Your task to perform on an android device: Go to ESPN.com Image 0: 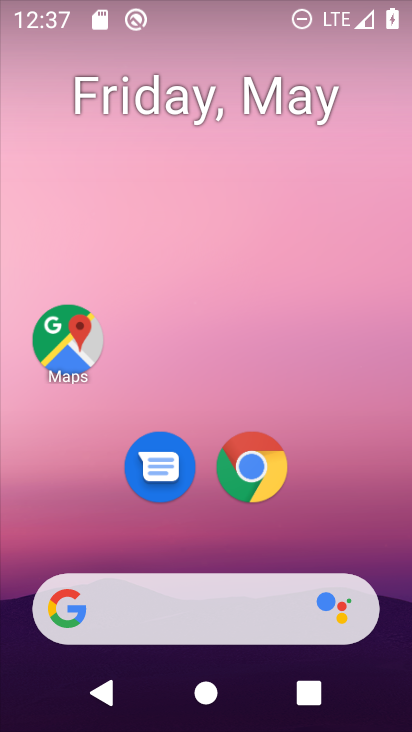
Step 0: drag from (298, 558) to (336, 16)
Your task to perform on an android device: Go to ESPN.com Image 1: 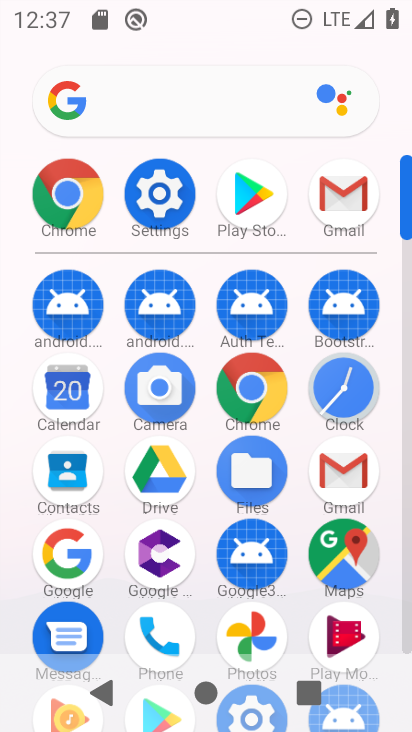
Step 1: click (270, 393)
Your task to perform on an android device: Go to ESPN.com Image 2: 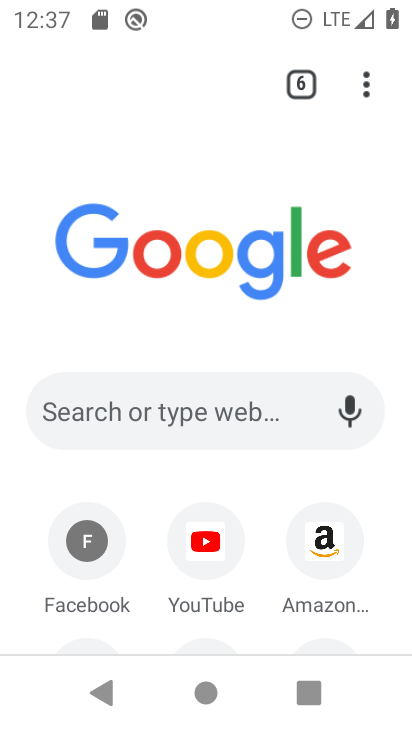
Step 2: click (270, 393)
Your task to perform on an android device: Go to ESPN.com Image 3: 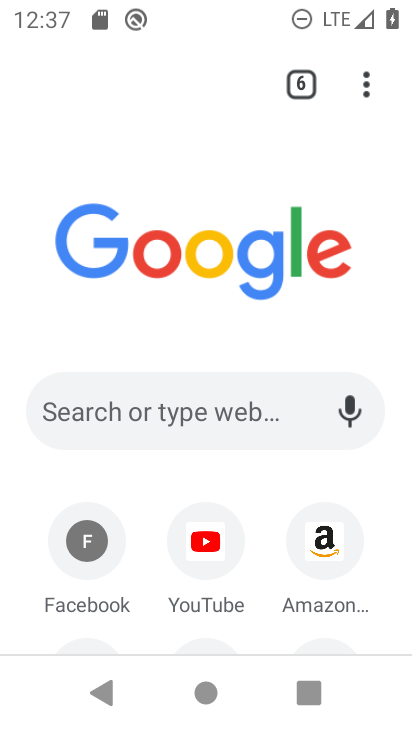
Step 3: click (270, 393)
Your task to perform on an android device: Go to ESPN.com Image 4: 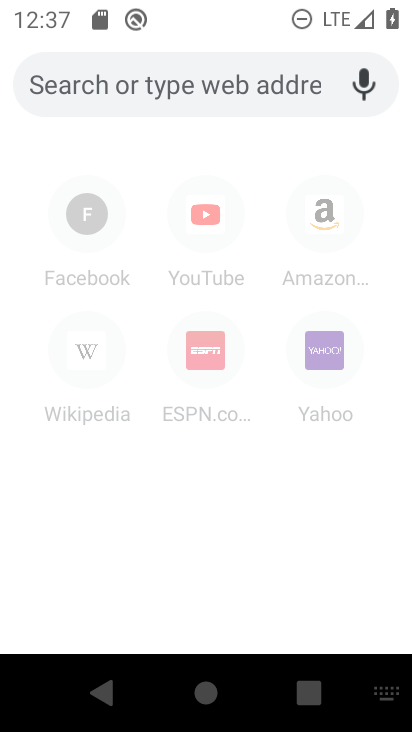
Step 4: press back button
Your task to perform on an android device: Go to ESPN.com Image 5: 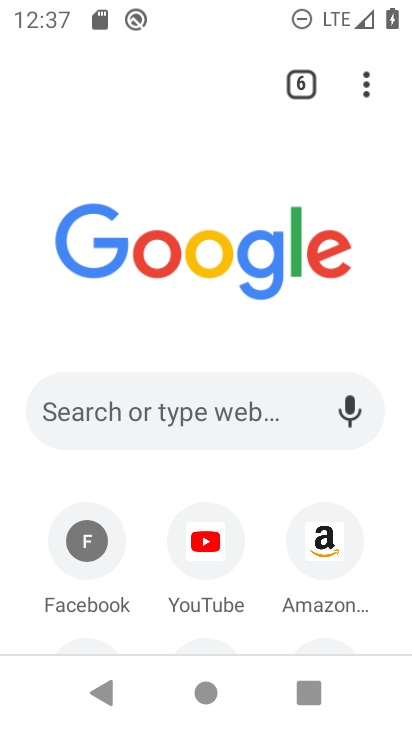
Step 5: drag from (252, 613) to (280, 174)
Your task to perform on an android device: Go to ESPN.com Image 6: 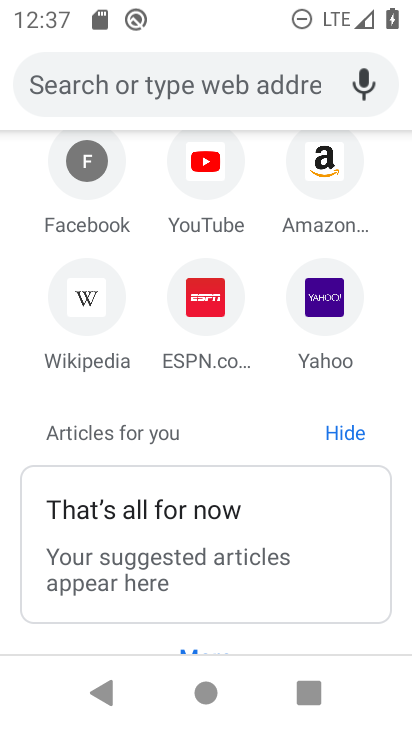
Step 6: click (202, 292)
Your task to perform on an android device: Go to ESPN.com Image 7: 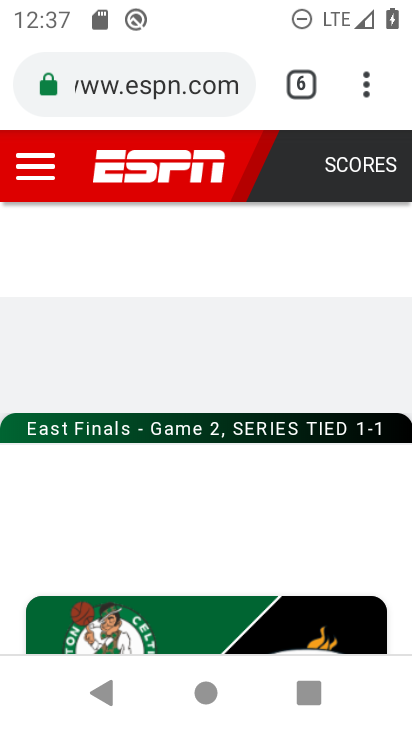
Step 7: task complete